Your task to perform on an android device: Clear the shopping cart on newegg. Search for bose soundsport free on newegg, select the first entry, add it to the cart, then select checkout. Image 0: 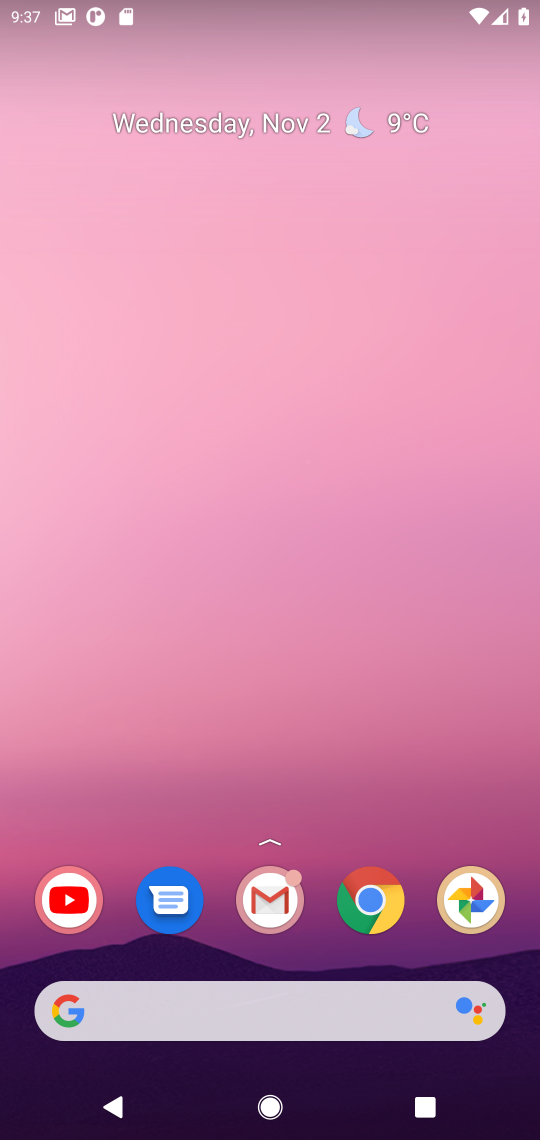
Step 0: click (370, 867)
Your task to perform on an android device: Clear the shopping cart on newegg. Search for bose soundsport free on newegg, select the first entry, add it to the cart, then select checkout. Image 1: 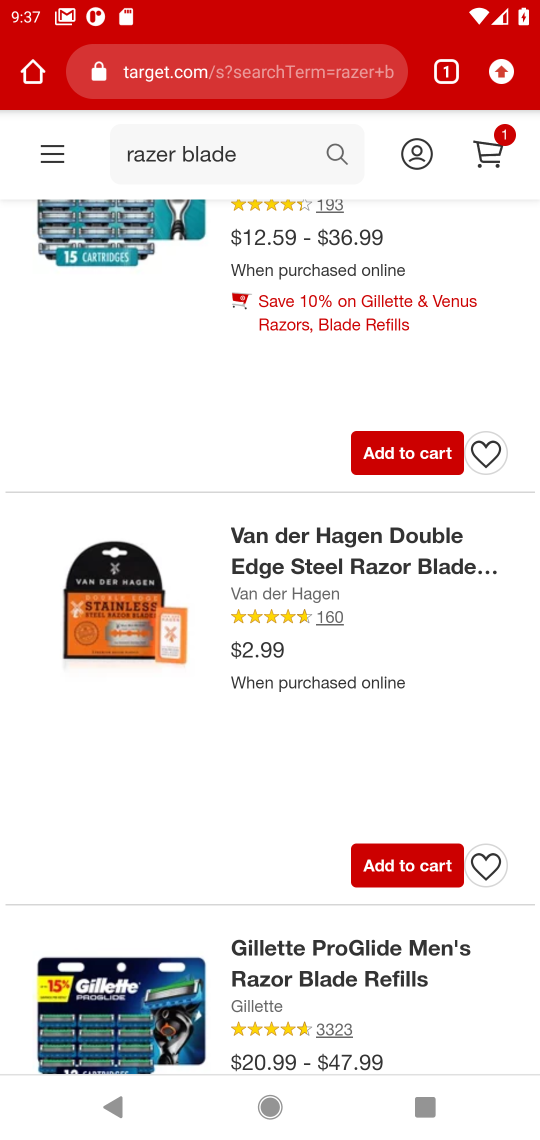
Step 1: click (213, 78)
Your task to perform on an android device: Clear the shopping cart on newegg. Search for bose soundsport free on newegg, select the first entry, add it to the cart, then select checkout. Image 2: 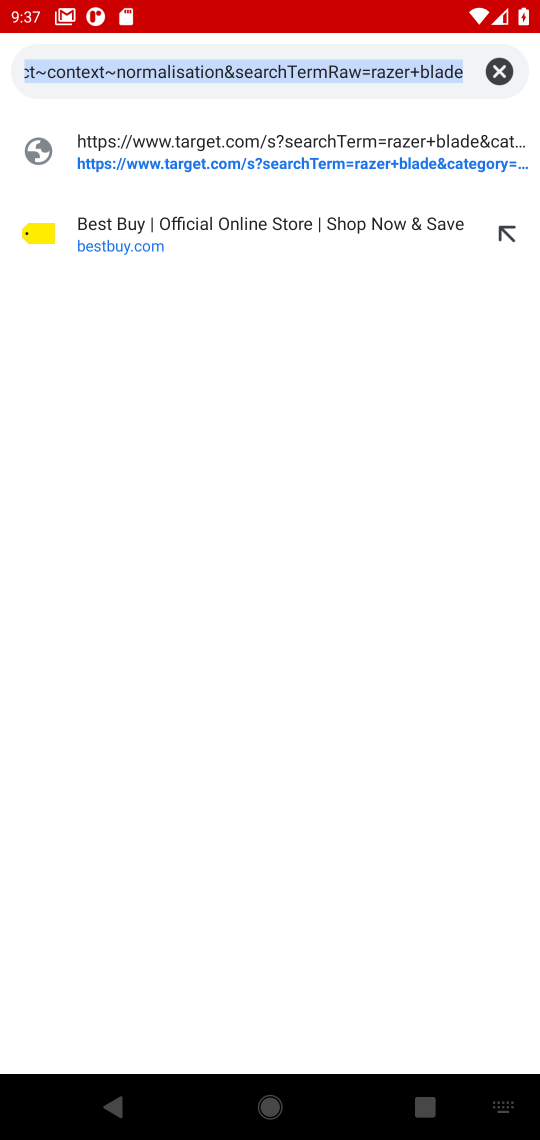
Step 2: type "newegg"
Your task to perform on an android device: Clear the shopping cart on newegg. Search for bose soundsport free on newegg, select the first entry, add it to the cart, then select checkout. Image 3: 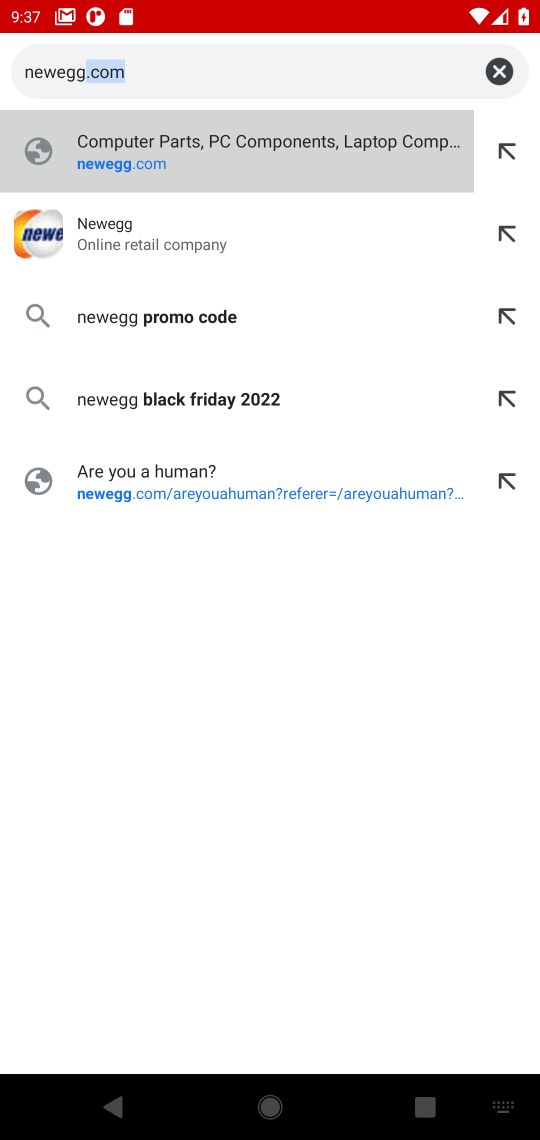
Step 3: click (77, 250)
Your task to perform on an android device: Clear the shopping cart on newegg. Search for bose soundsport free on newegg, select the first entry, add it to the cart, then select checkout. Image 4: 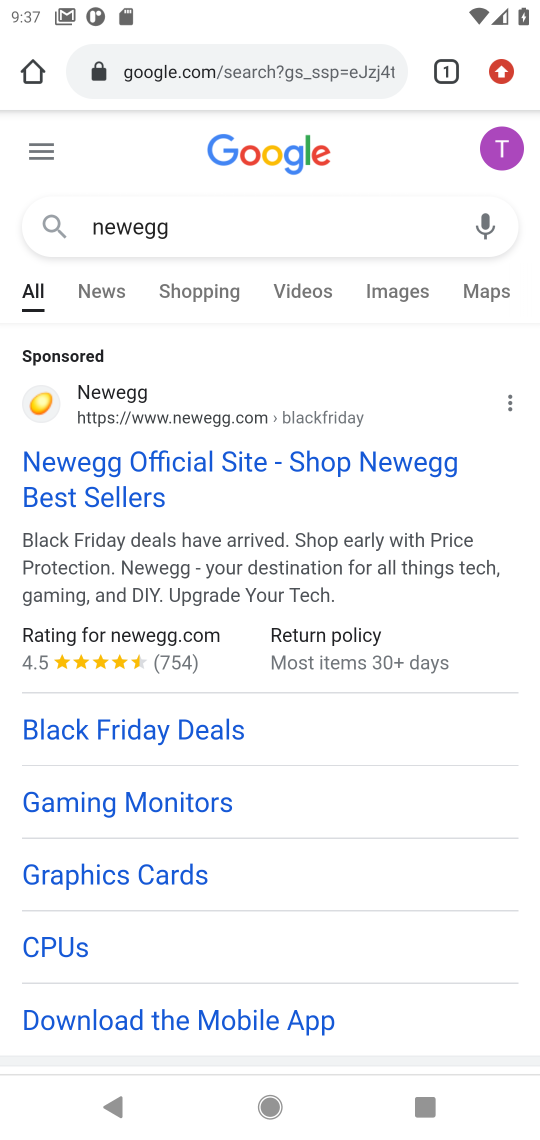
Step 4: click (110, 477)
Your task to perform on an android device: Clear the shopping cart on newegg. Search for bose soundsport free on newegg, select the first entry, add it to the cart, then select checkout. Image 5: 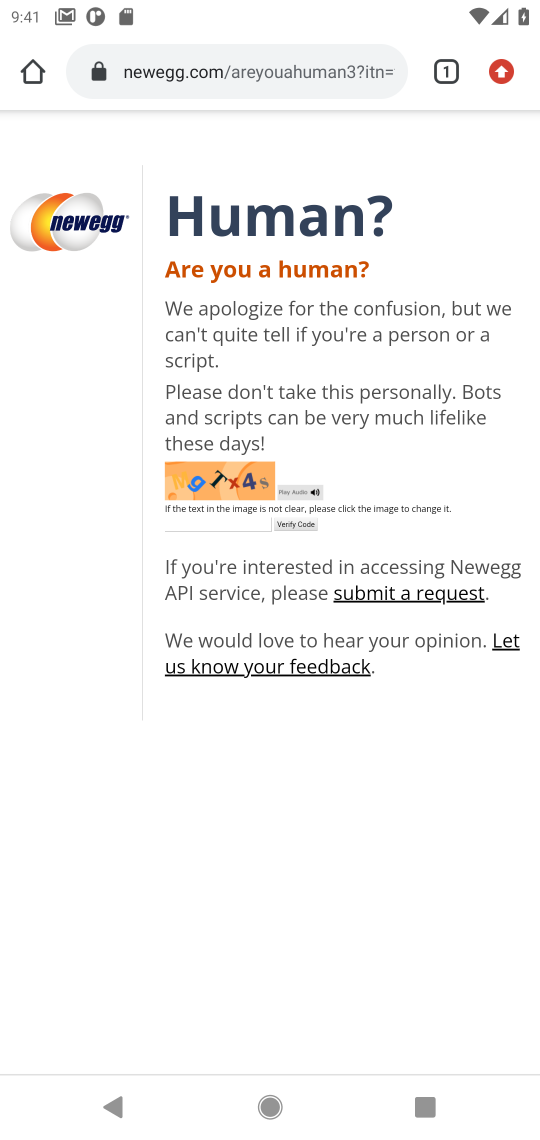
Step 5: task complete